Your task to perform on an android device: Play the last video I watched on Youtube Image 0: 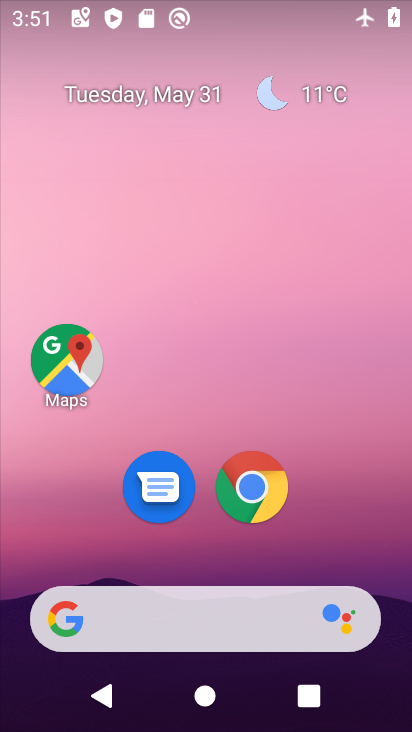
Step 0: drag from (330, 545) to (253, 74)
Your task to perform on an android device: Play the last video I watched on Youtube Image 1: 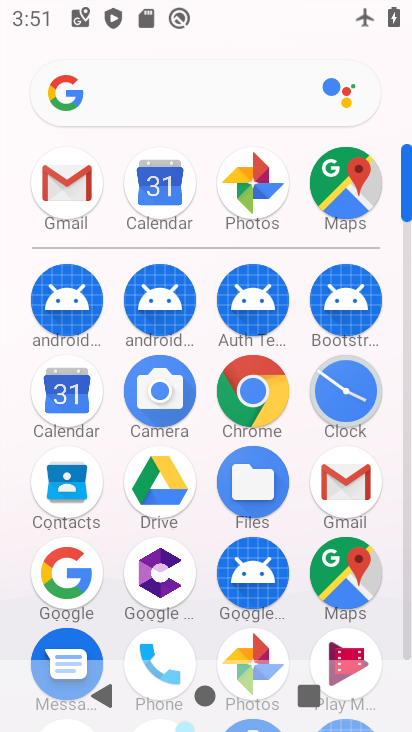
Step 1: drag from (222, 524) to (186, 262)
Your task to perform on an android device: Play the last video I watched on Youtube Image 2: 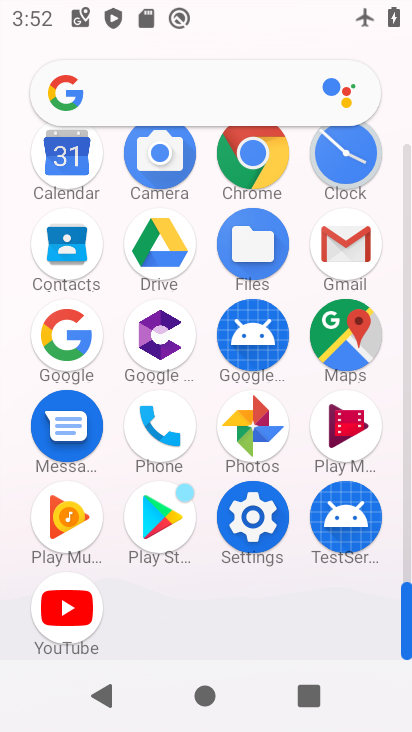
Step 2: click (64, 608)
Your task to perform on an android device: Play the last video I watched on Youtube Image 3: 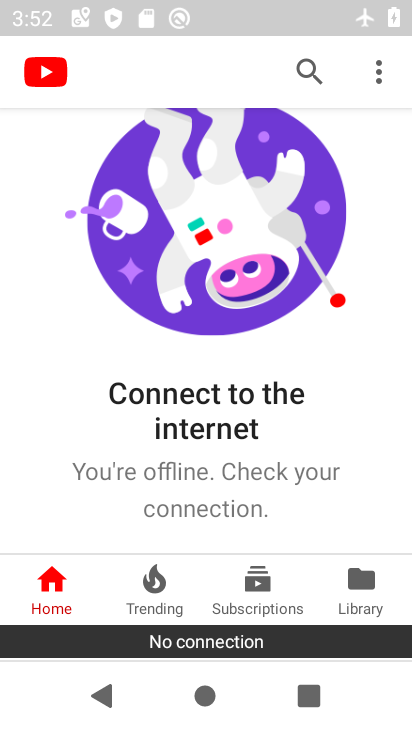
Step 3: click (343, 588)
Your task to perform on an android device: Play the last video I watched on Youtube Image 4: 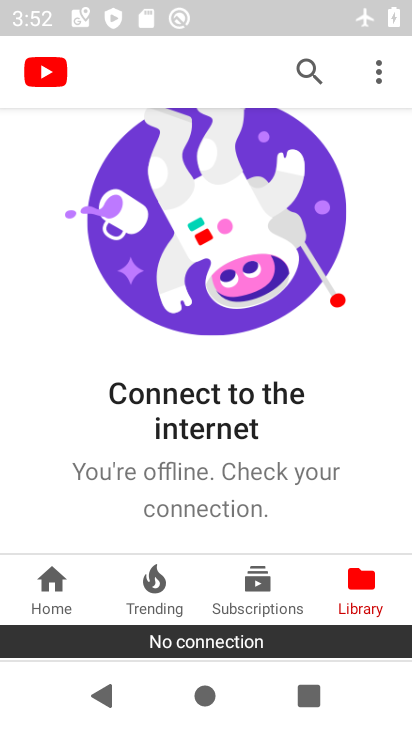
Step 4: task complete